Your task to perform on an android device: toggle notifications settings in the gmail app Image 0: 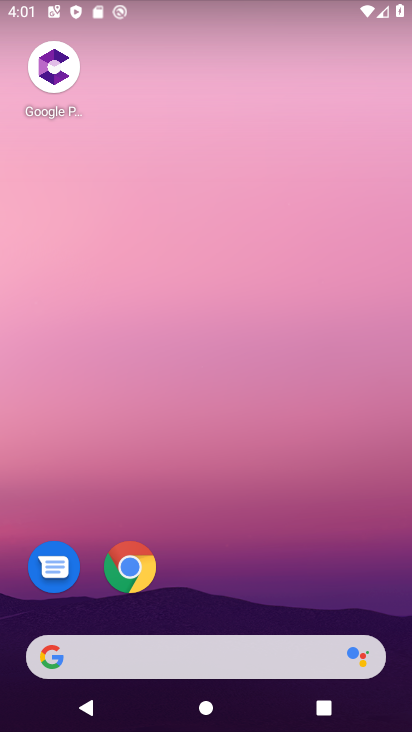
Step 0: drag from (259, 598) to (245, 90)
Your task to perform on an android device: toggle notifications settings in the gmail app Image 1: 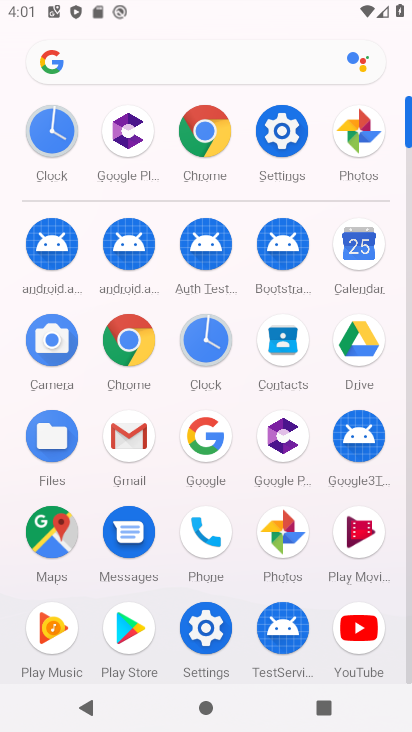
Step 1: click (121, 439)
Your task to perform on an android device: toggle notifications settings in the gmail app Image 2: 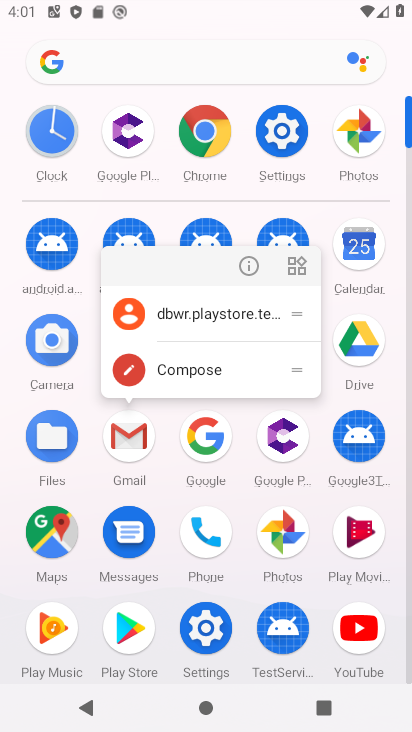
Step 2: click (250, 262)
Your task to perform on an android device: toggle notifications settings in the gmail app Image 3: 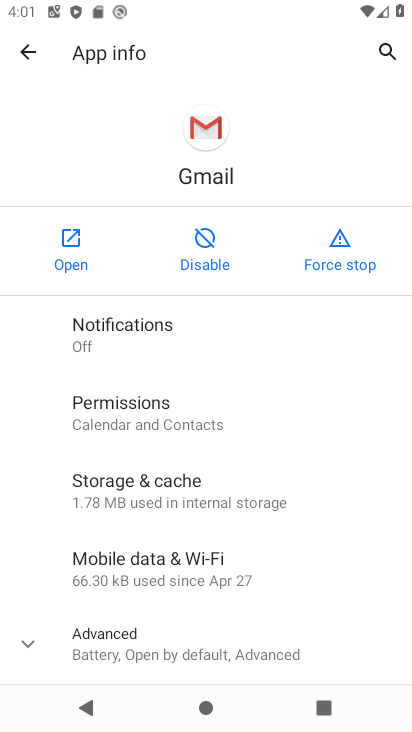
Step 3: click (97, 319)
Your task to perform on an android device: toggle notifications settings in the gmail app Image 4: 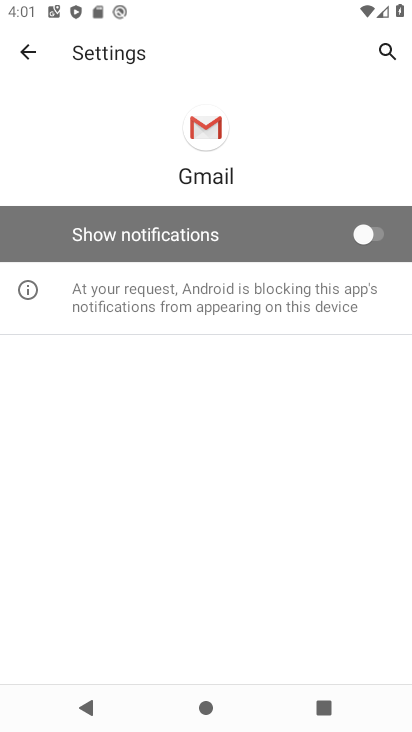
Step 4: click (373, 236)
Your task to perform on an android device: toggle notifications settings in the gmail app Image 5: 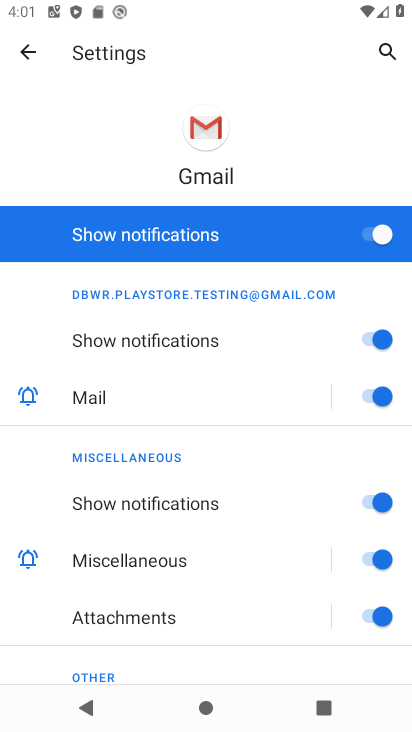
Step 5: task complete